Your task to perform on an android device: Go to location settings Image 0: 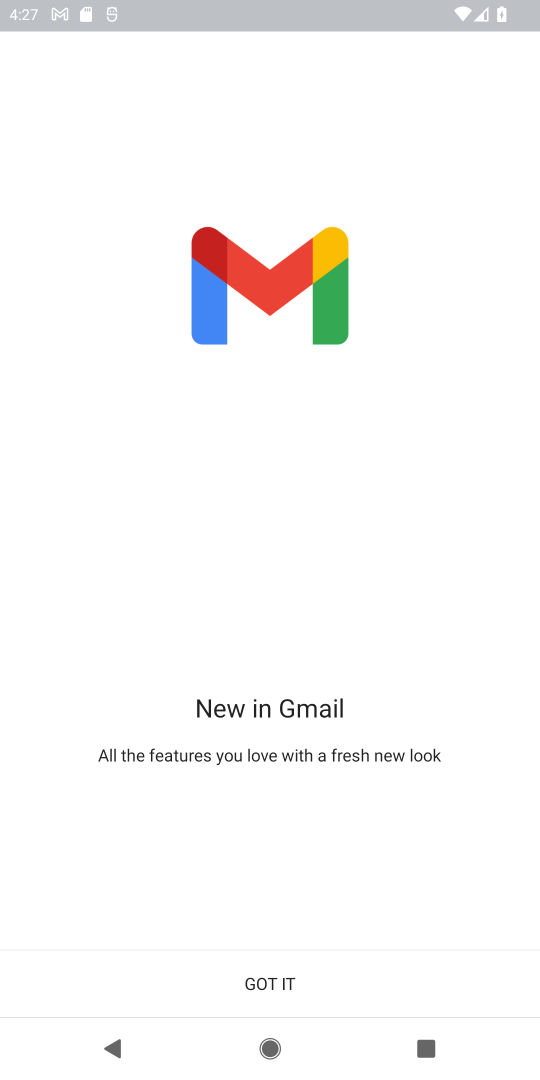
Step 0: press home button
Your task to perform on an android device: Go to location settings Image 1: 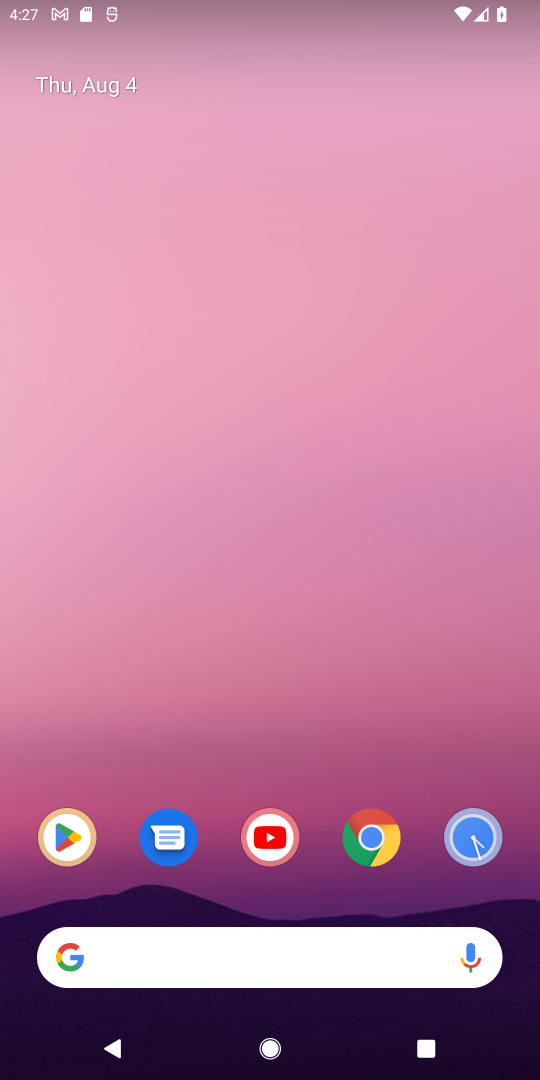
Step 1: drag from (306, 879) to (247, 207)
Your task to perform on an android device: Go to location settings Image 2: 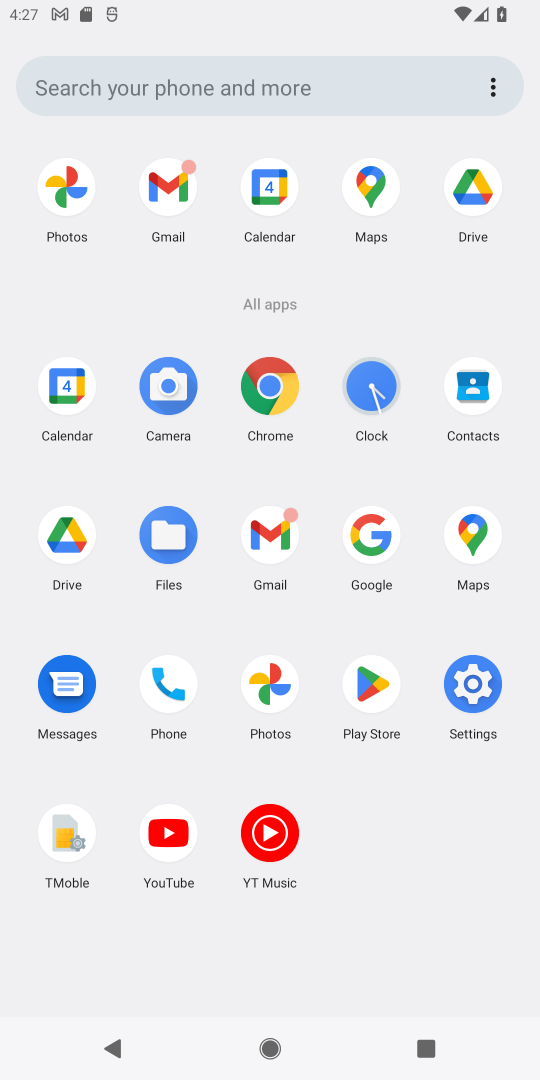
Step 2: click (481, 681)
Your task to perform on an android device: Go to location settings Image 3: 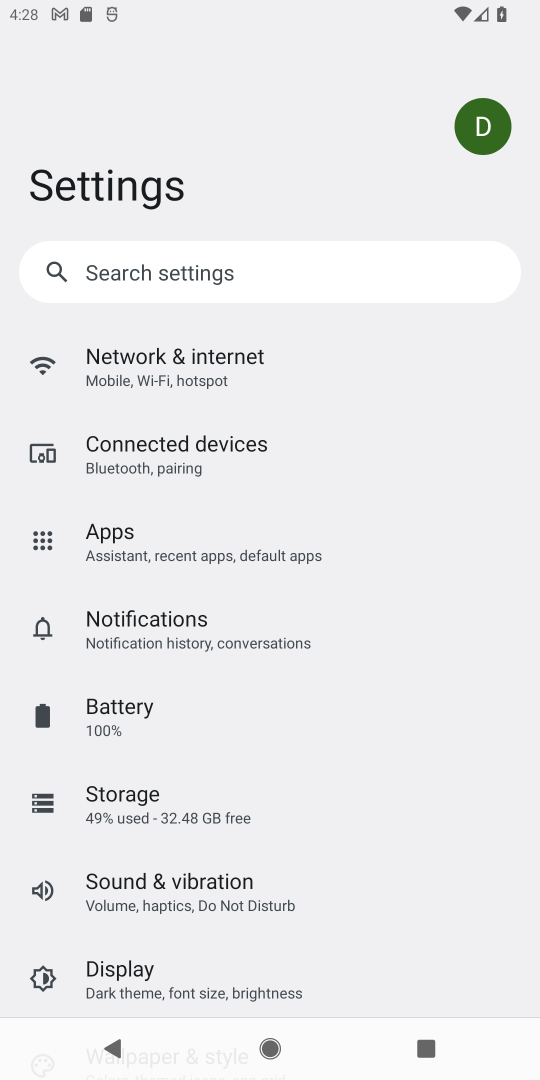
Step 3: drag from (192, 854) to (151, 120)
Your task to perform on an android device: Go to location settings Image 4: 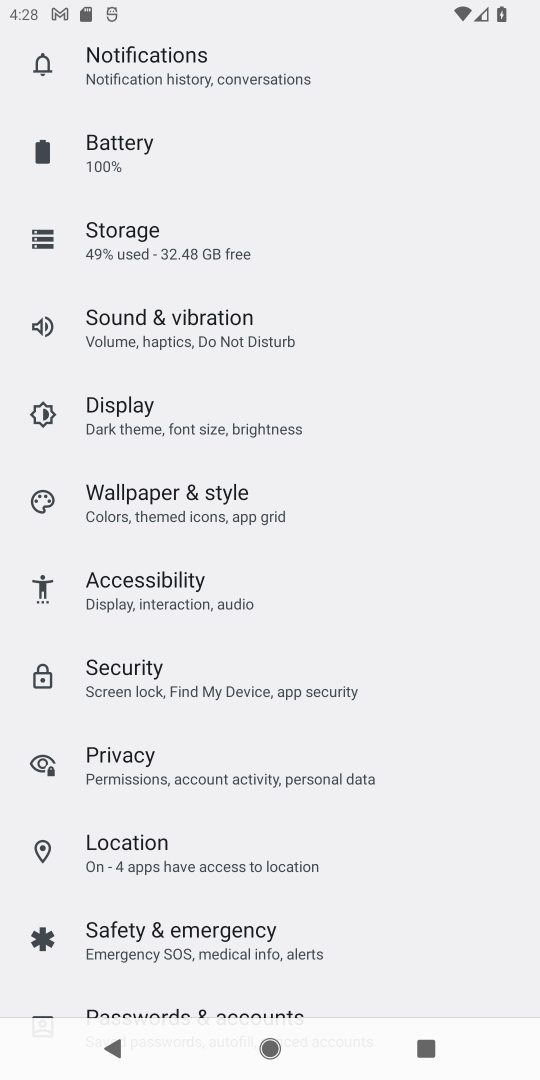
Step 4: click (209, 835)
Your task to perform on an android device: Go to location settings Image 5: 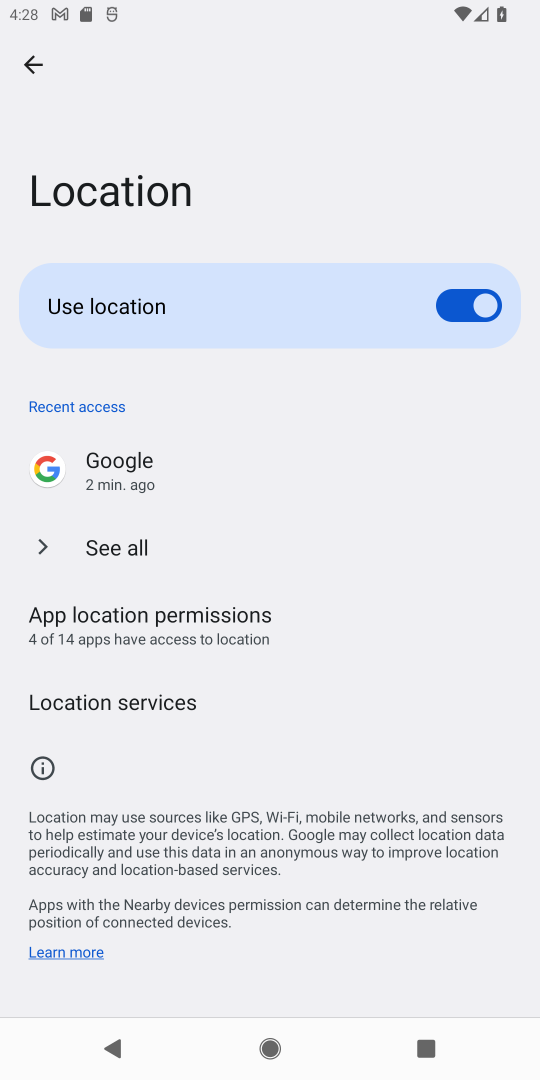
Step 5: task complete